Your task to perform on an android device: check battery use Image 0: 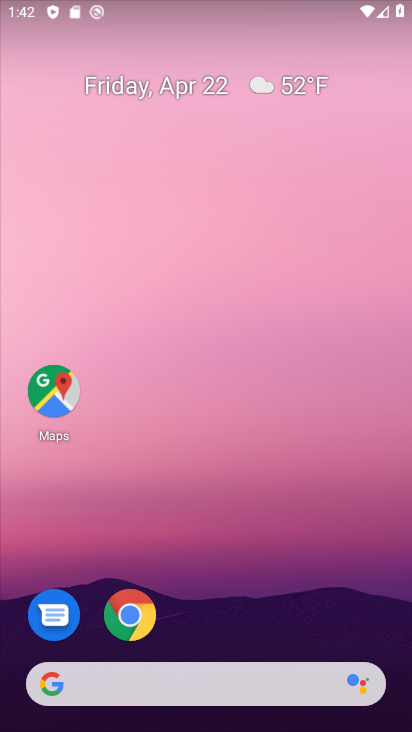
Step 0: drag from (240, 653) to (340, 156)
Your task to perform on an android device: check battery use Image 1: 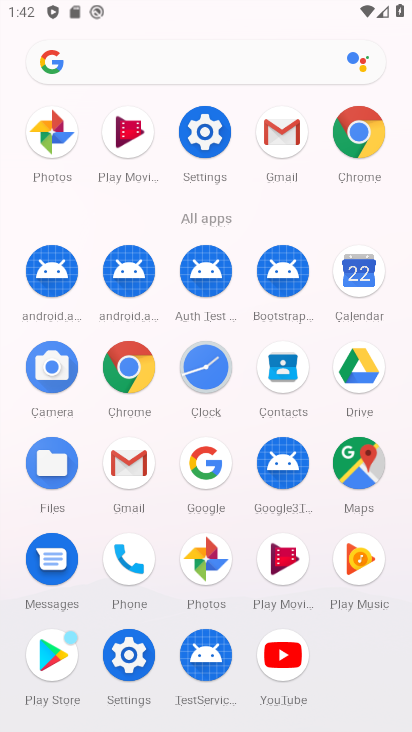
Step 1: click (134, 659)
Your task to perform on an android device: check battery use Image 2: 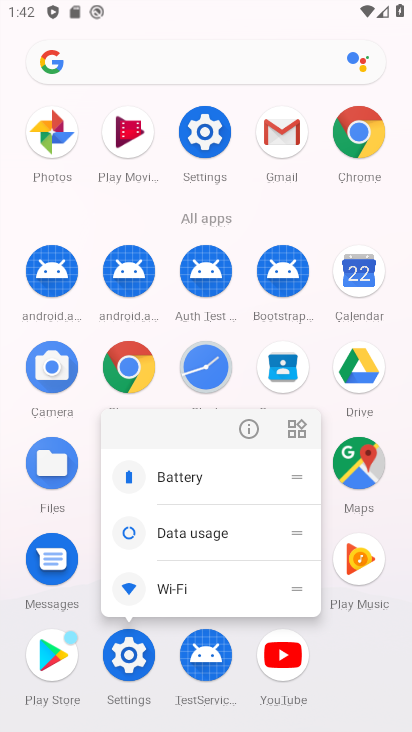
Step 2: click (134, 648)
Your task to perform on an android device: check battery use Image 3: 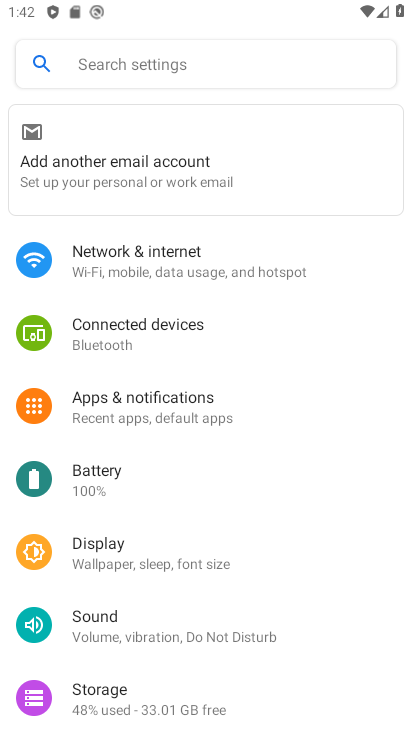
Step 3: drag from (157, 658) to (203, 473)
Your task to perform on an android device: check battery use Image 4: 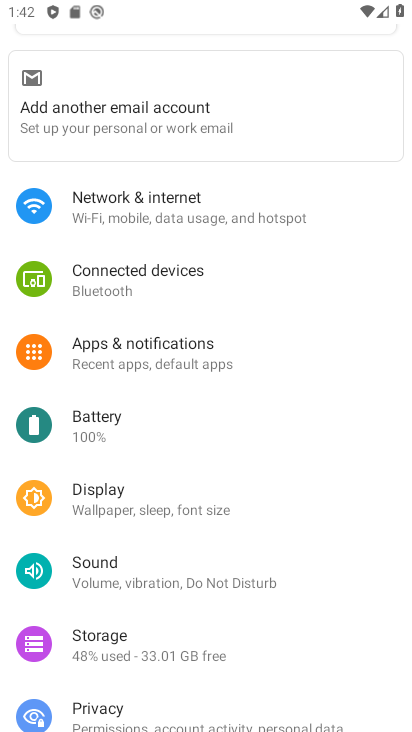
Step 4: click (150, 416)
Your task to perform on an android device: check battery use Image 5: 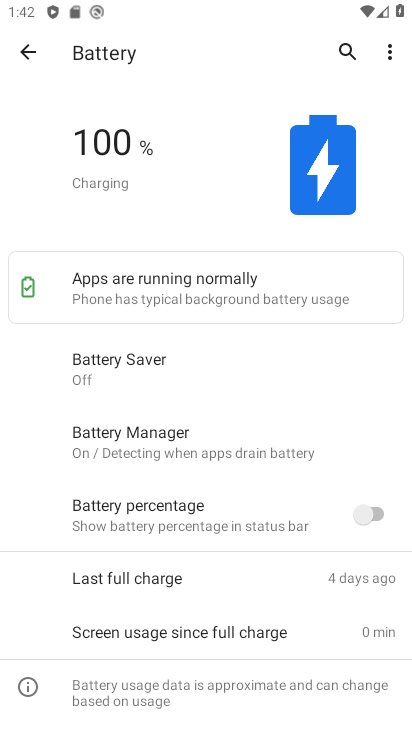
Step 5: click (390, 49)
Your task to perform on an android device: check battery use Image 6: 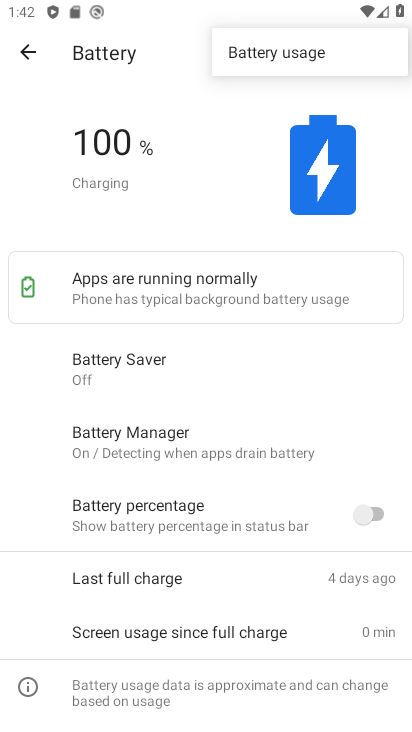
Step 6: click (367, 56)
Your task to perform on an android device: check battery use Image 7: 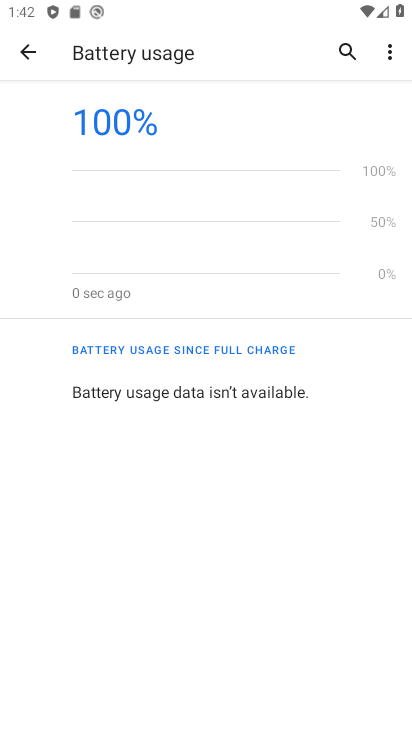
Step 7: task complete